Your task to perform on an android device: Open Yahoo.com Image 0: 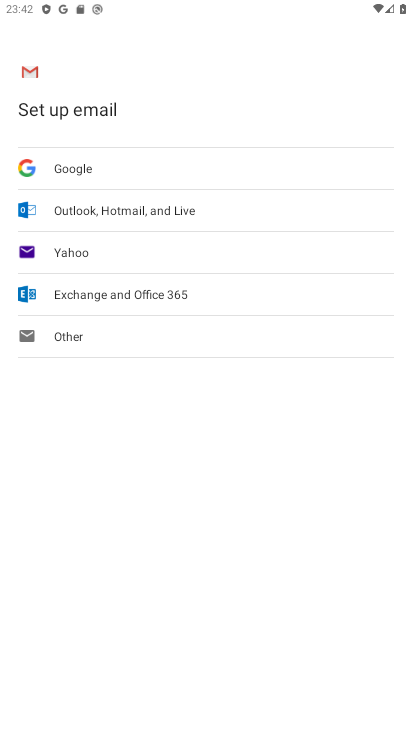
Step 0: press home button
Your task to perform on an android device: Open Yahoo.com Image 1: 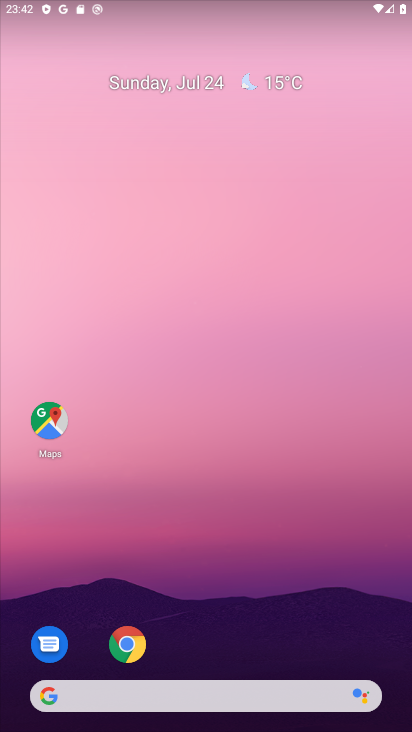
Step 1: drag from (221, 721) to (221, 112)
Your task to perform on an android device: Open Yahoo.com Image 2: 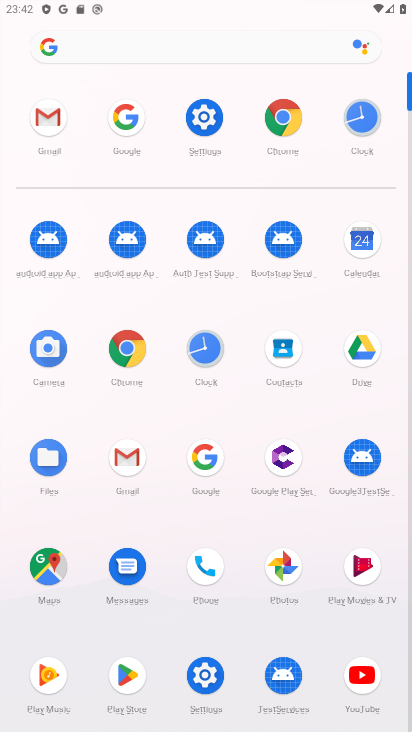
Step 2: click (127, 348)
Your task to perform on an android device: Open Yahoo.com Image 3: 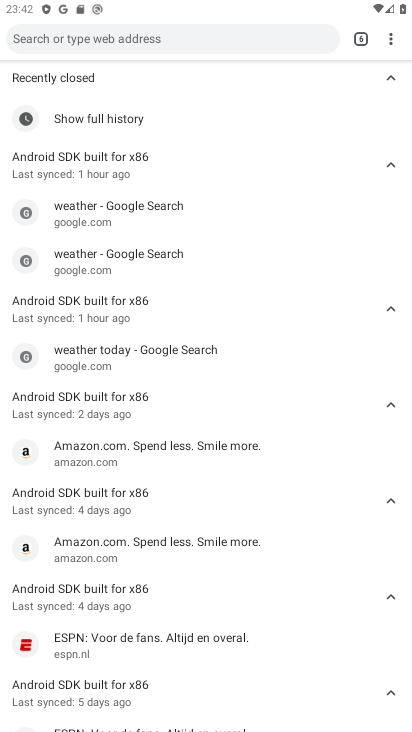
Step 3: click (390, 41)
Your task to perform on an android device: Open Yahoo.com Image 4: 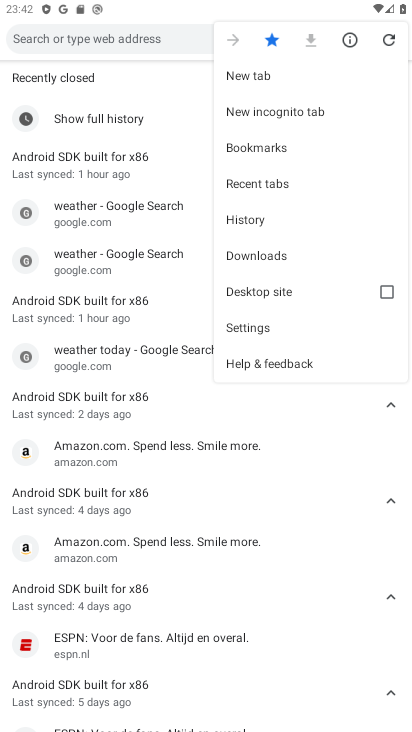
Step 4: click (260, 71)
Your task to perform on an android device: Open Yahoo.com Image 5: 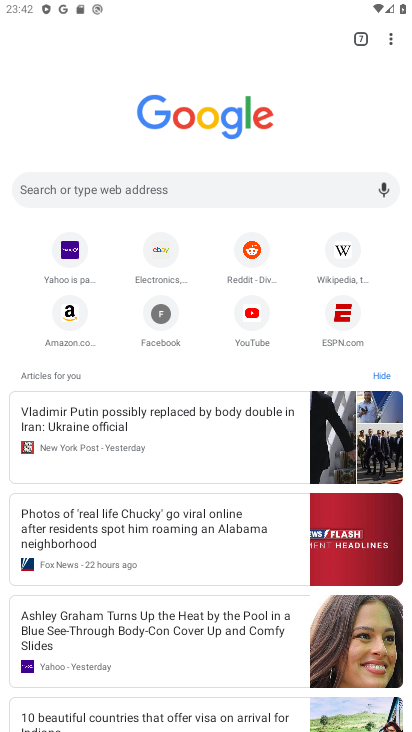
Step 5: click (63, 249)
Your task to perform on an android device: Open Yahoo.com Image 6: 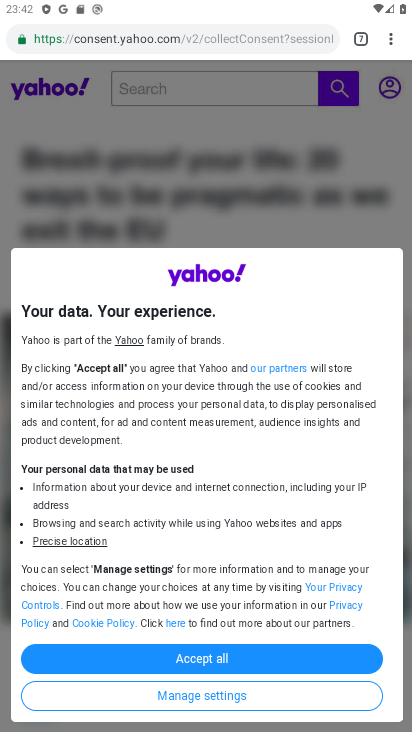
Step 6: task complete